Your task to perform on an android device: turn off airplane mode Image 0: 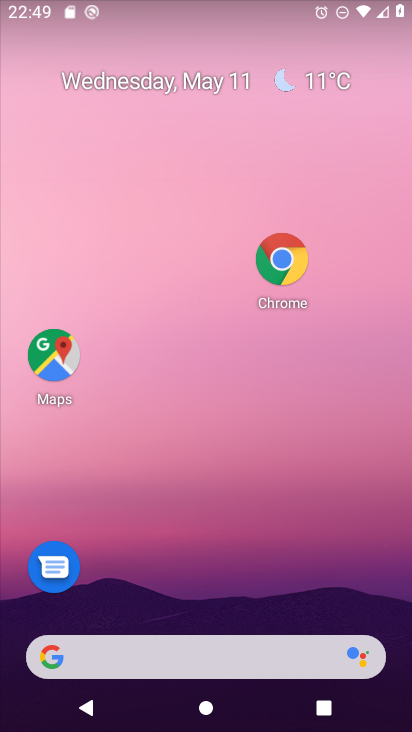
Step 0: drag from (155, 663) to (286, 193)
Your task to perform on an android device: turn off airplane mode Image 1: 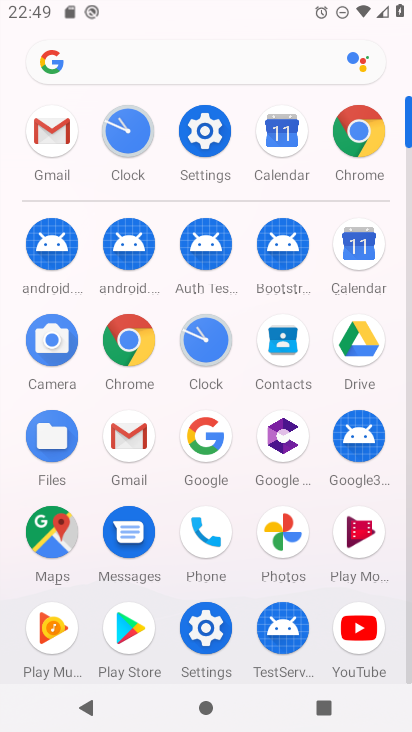
Step 1: click (209, 139)
Your task to perform on an android device: turn off airplane mode Image 2: 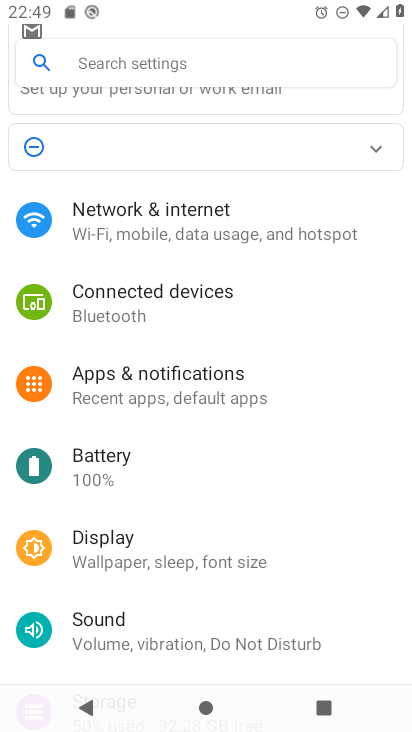
Step 2: click (188, 218)
Your task to perform on an android device: turn off airplane mode Image 3: 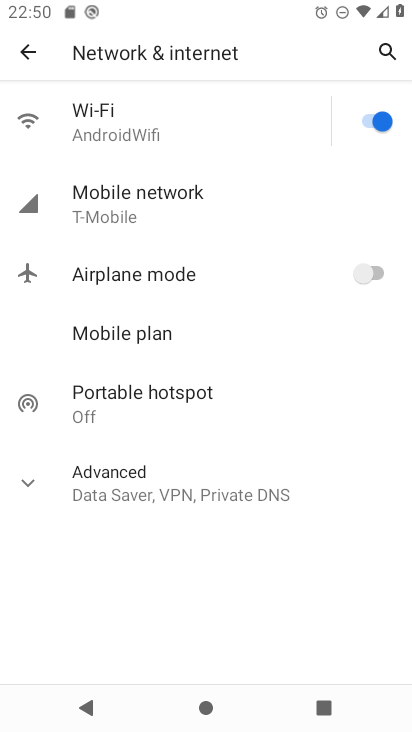
Step 3: task complete